Your task to perform on an android device: turn on priority inbox in the gmail app Image 0: 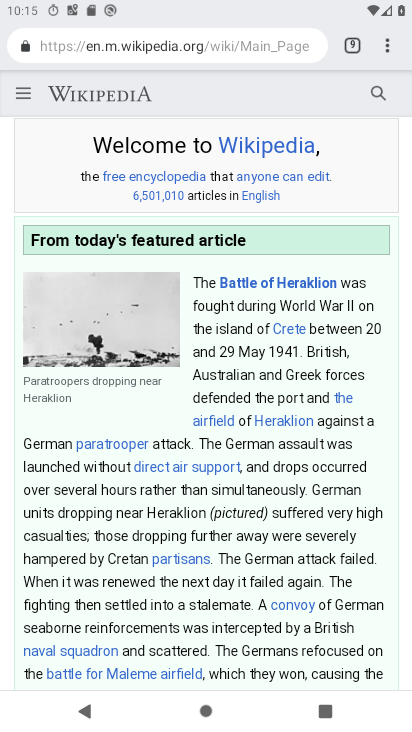
Step 0: press home button
Your task to perform on an android device: turn on priority inbox in the gmail app Image 1: 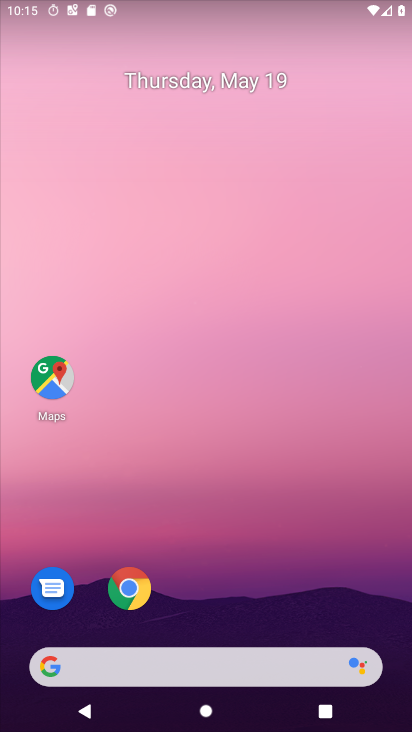
Step 1: drag from (141, 659) to (319, 101)
Your task to perform on an android device: turn on priority inbox in the gmail app Image 2: 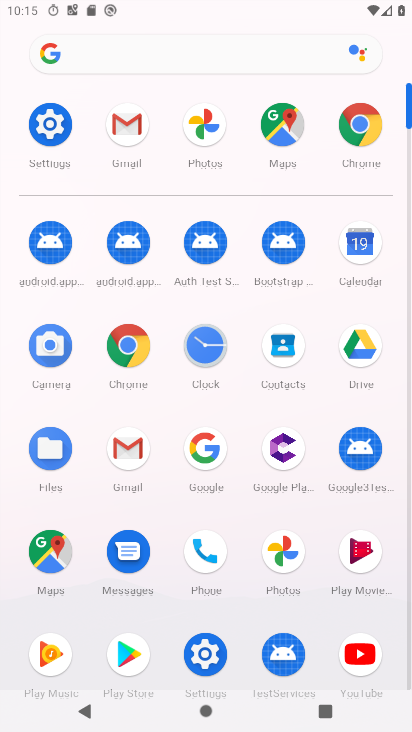
Step 2: click (117, 142)
Your task to perform on an android device: turn on priority inbox in the gmail app Image 3: 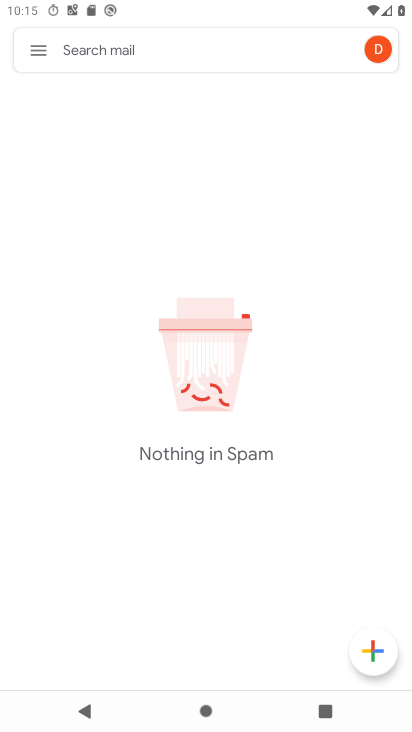
Step 3: click (38, 50)
Your task to perform on an android device: turn on priority inbox in the gmail app Image 4: 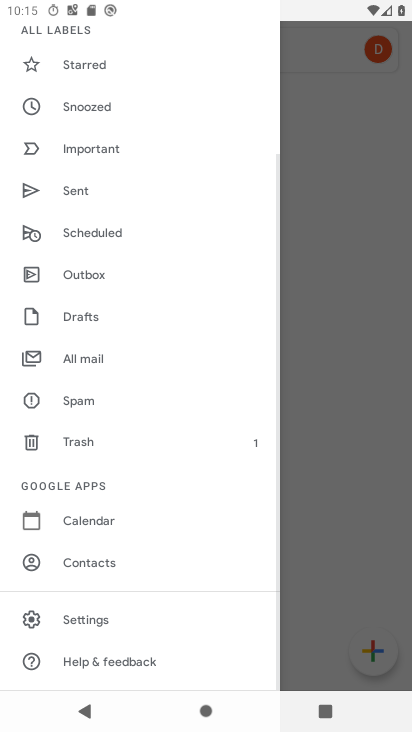
Step 4: click (90, 623)
Your task to perform on an android device: turn on priority inbox in the gmail app Image 5: 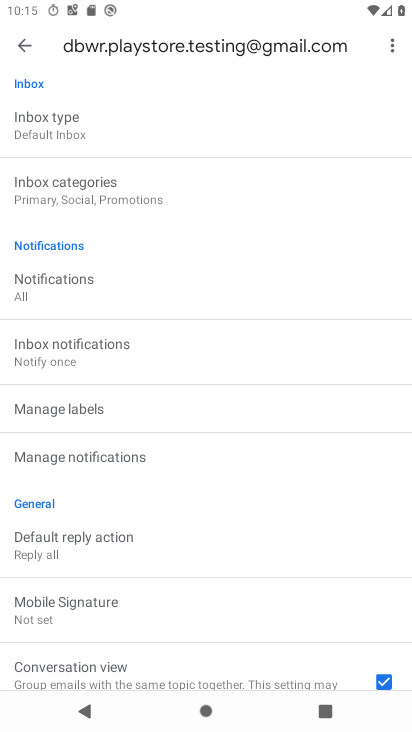
Step 5: click (60, 126)
Your task to perform on an android device: turn on priority inbox in the gmail app Image 6: 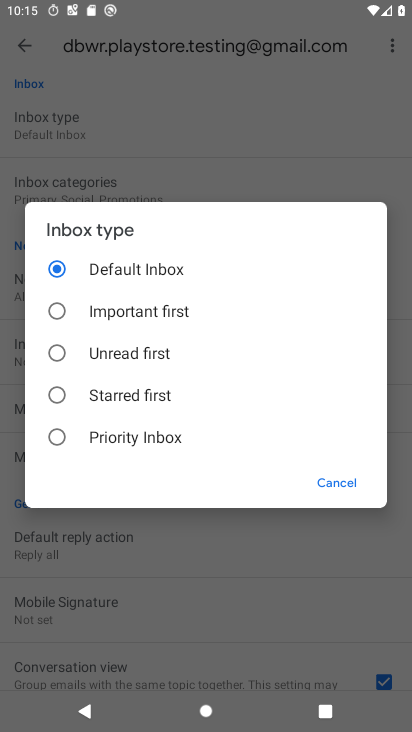
Step 6: click (55, 433)
Your task to perform on an android device: turn on priority inbox in the gmail app Image 7: 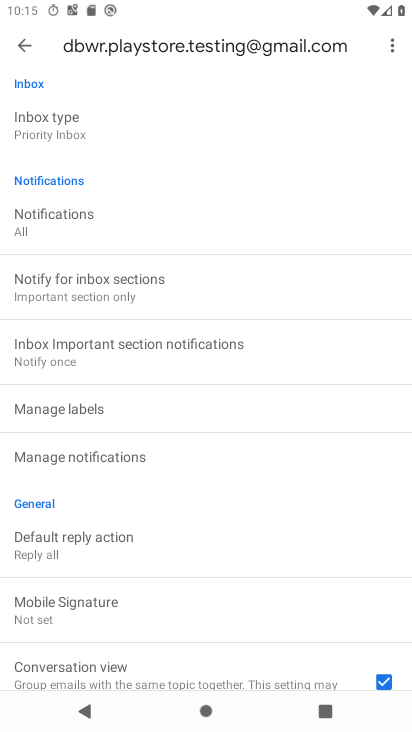
Step 7: task complete